Your task to perform on an android device: What is the news today? Image 0: 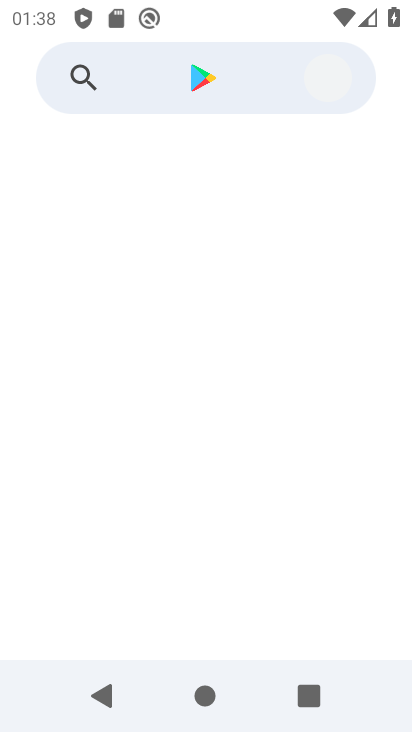
Step 0: press home button
Your task to perform on an android device: What is the news today? Image 1: 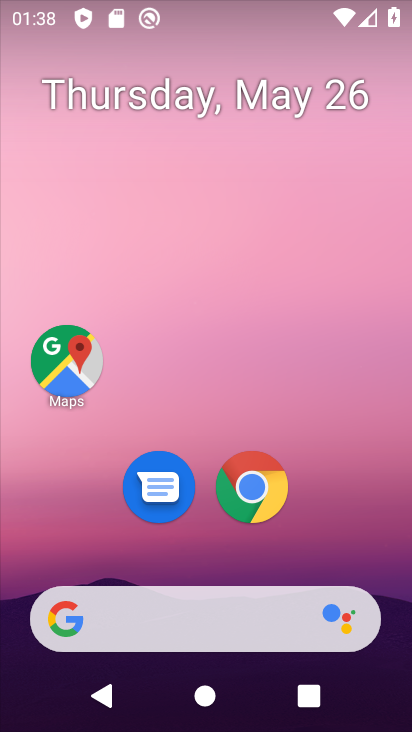
Step 1: drag from (181, 607) to (184, 56)
Your task to perform on an android device: What is the news today? Image 2: 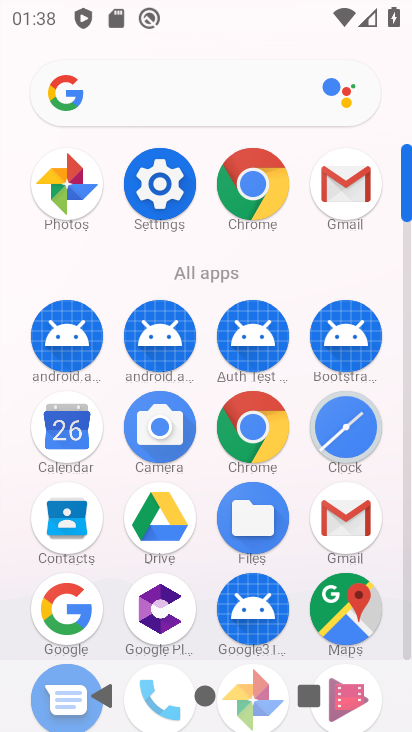
Step 2: click (82, 599)
Your task to perform on an android device: What is the news today? Image 3: 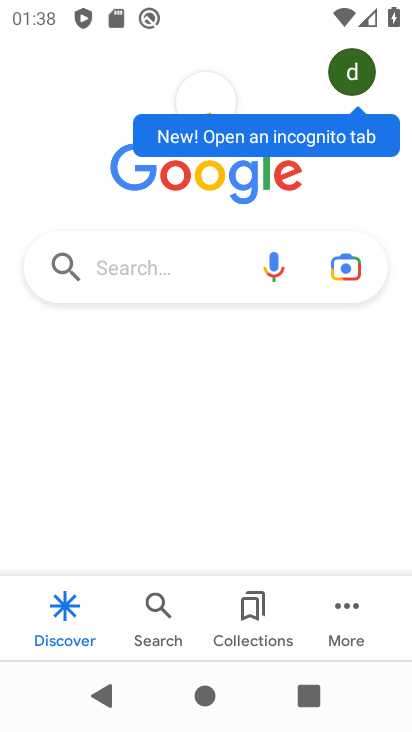
Step 3: drag from (218, 481) to (231, 65)
Your task to perform on an android device: What is the news today? Image 4: 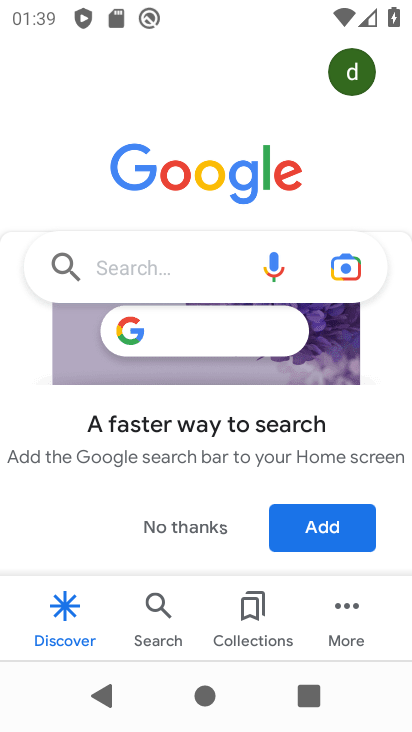
Step 4: click (188, 537)
Your task to perform on an android device: What is the news today? Image 5: 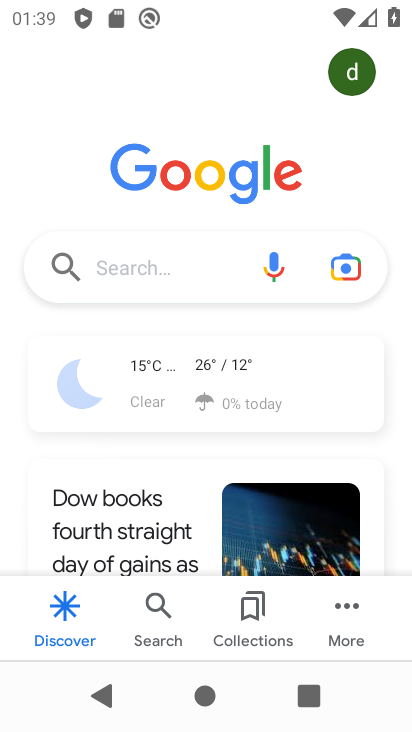
Step 5: task complete